Your task to perform on an android device: Do I have any events tomorrow? Image 0: 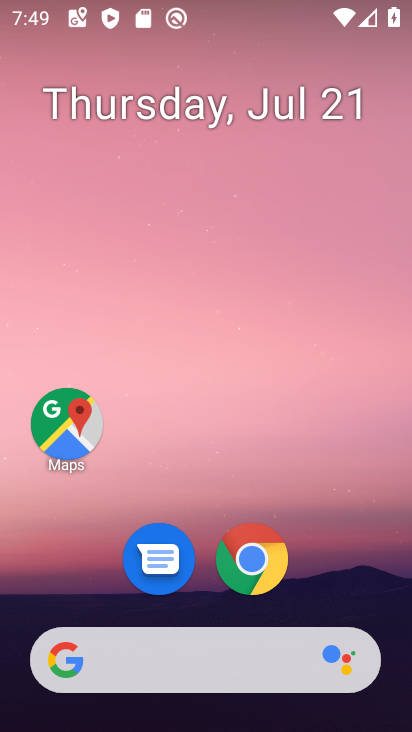
Step 0: drag from (264, 660) to (371, 43)
Your task to perform on an android device: Do I have any events tomorrow? Image 1: 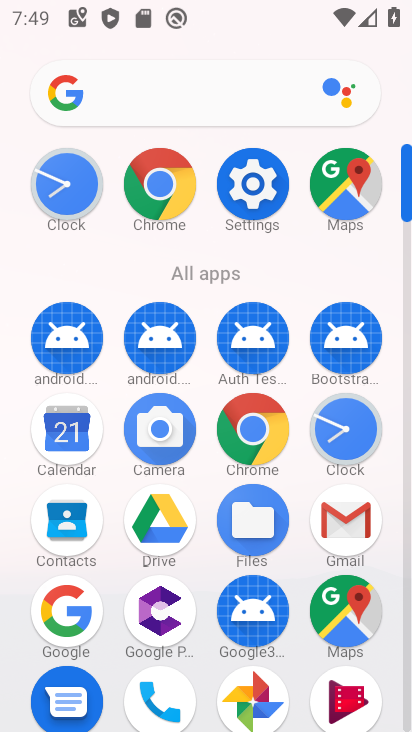
Step 1: drag from (221, 550) to (290, 222)
Your task to perform on an android device: Do I have any events tomorrow? Image 2: 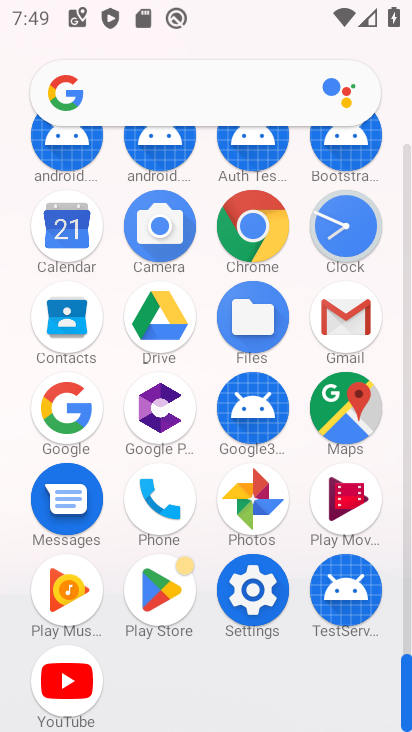
Step 2: drag from (307, 319) to (294, 634)
Your task to perform on an android device: Do I have any events tomorrow? Image 3: 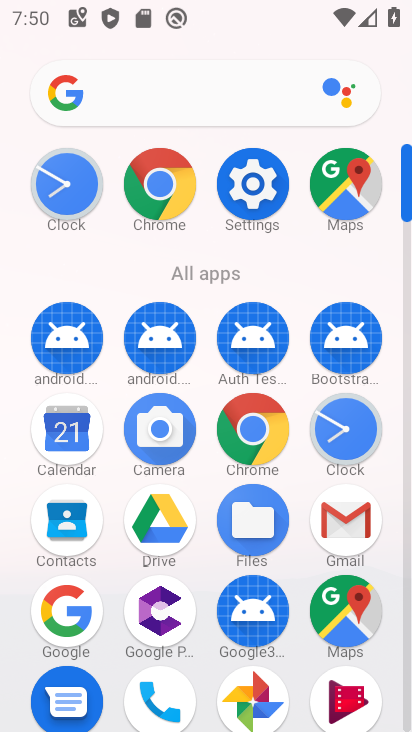
Step 3: click (79, 469)
Your task to perform on an android device: Do I have any events tomorrow? Image 4: 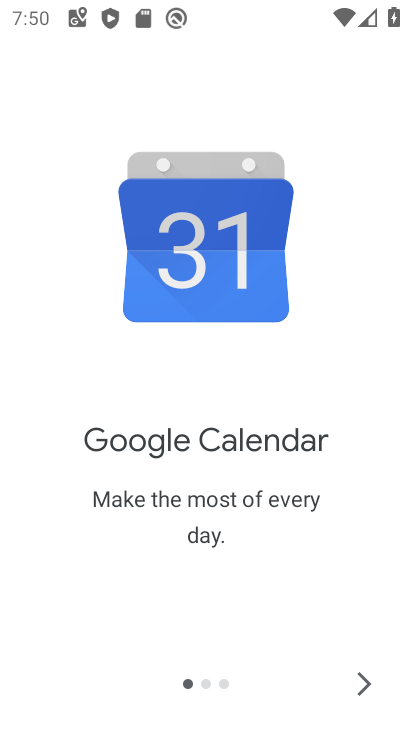
Step 4: click (366, 688)
Your task to perform on an android device: Do I have any events tomorrow? Image 5: 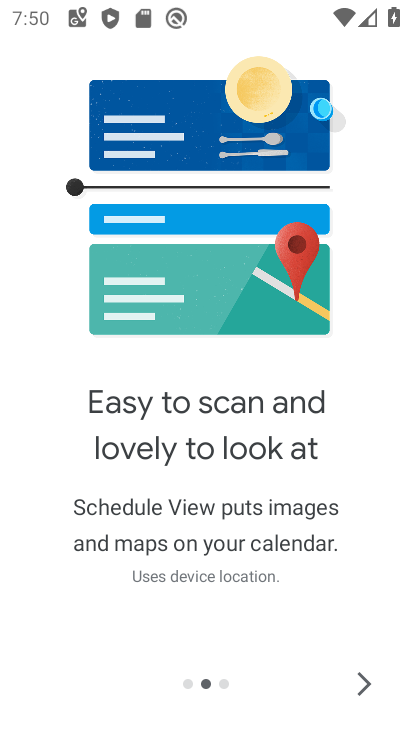
Step 5: click (361, 685)
Your task to perform on an android device: Do I have any events tomorrow? Image 6: 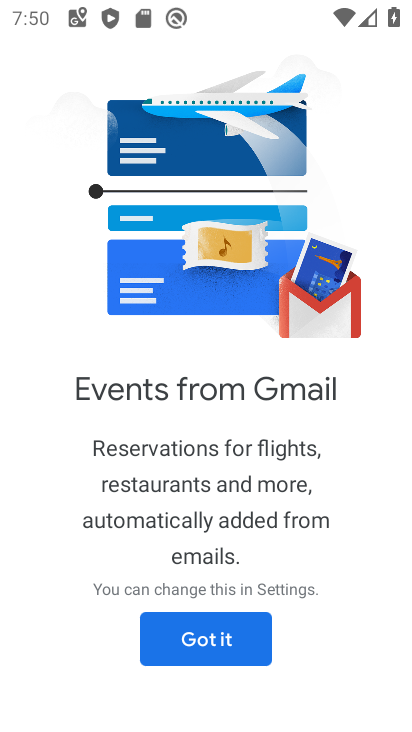
Step 6: click (207, 638)
Your task to perform on an android device: Do I have any events tomorrow? Image 7: 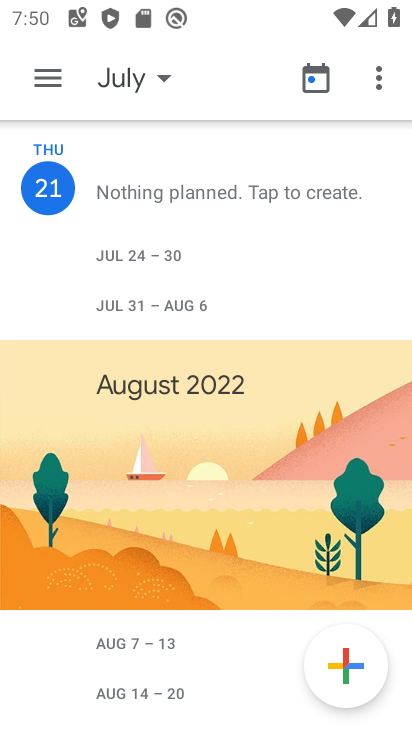
Step 7: click (155, 95)
Your task to perform on an android device: Do I have any events tomorrow? Image 8: 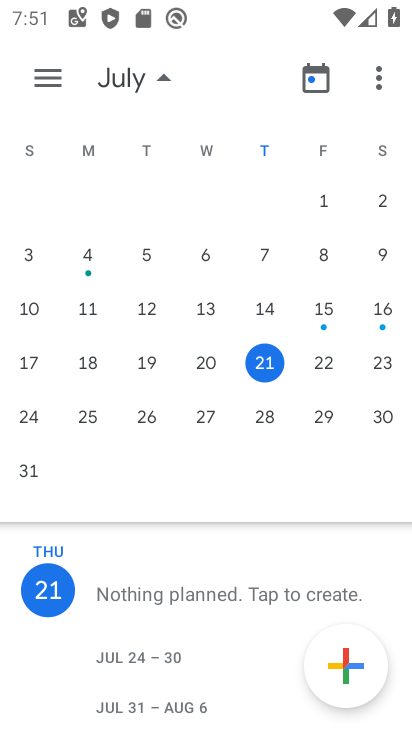
Step 8: click (326, 374)
Your task to perform on an android device: Do I have any events tomorrow? Image 9: 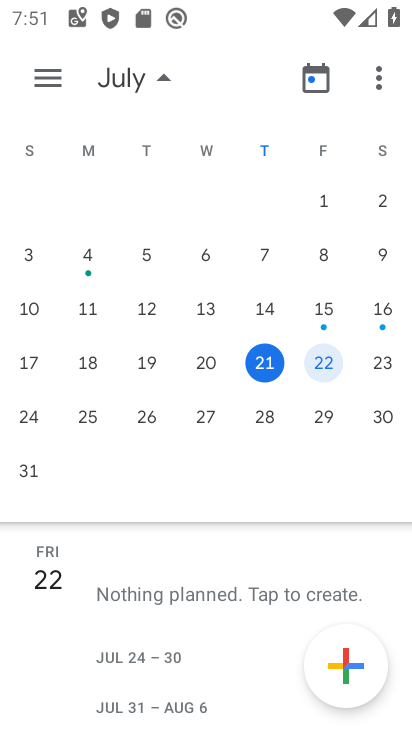
Step 9: task complete